Your task to perform on an android device: When is my next meeting? Image 0: 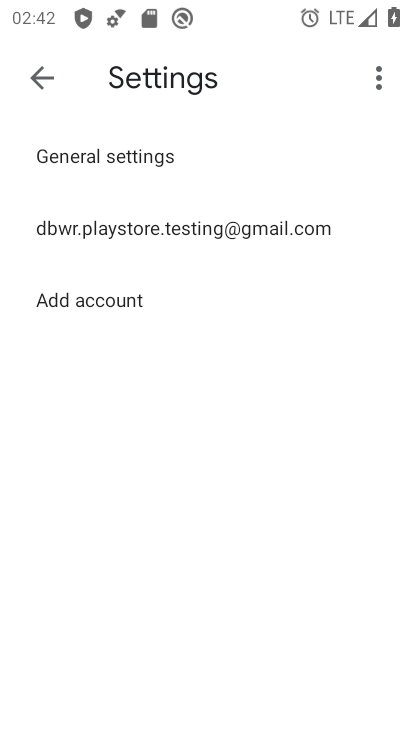
Step 0: press home button
Your task to perform on an android device: When is my next meeting? Image 1: 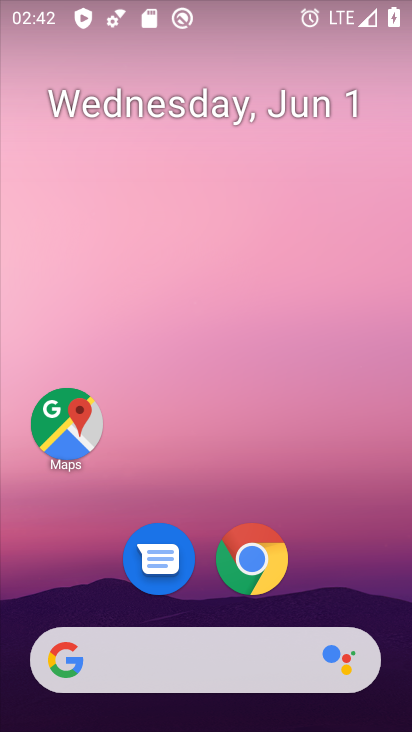
Step 1: drag from (318, 601) to (285, 205)
Your task to perform on an android device: When is my next meeting? Image 2: 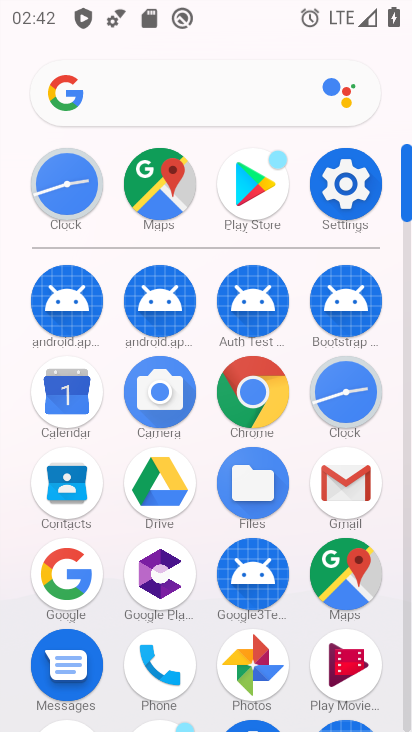
Step 2: click (64, 402)
Your task to perform on an android device: When is my next meeting? Image 3: 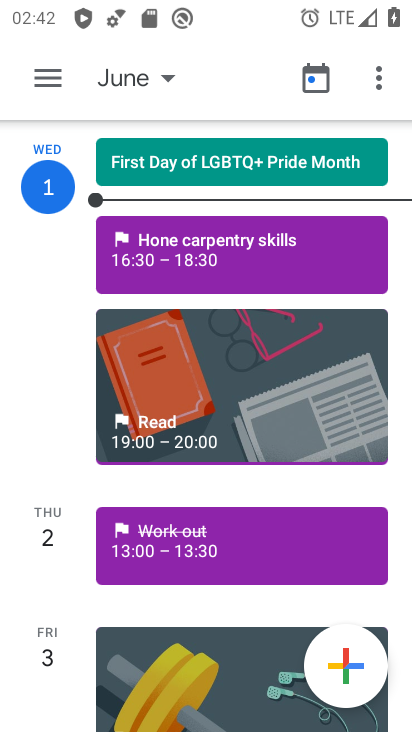
Step 3: click (42, 88)
Your task to perform on an android device: When is my next meeting? Image 4: 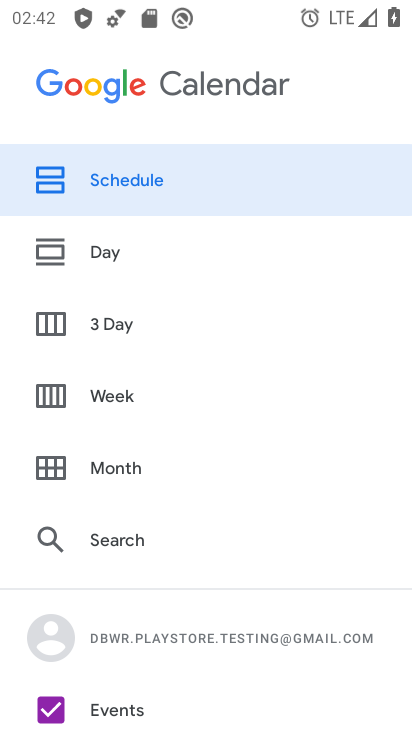
Step 4: click (117, 194)
Your task to perform on an android device: When is my next meeting? Image 5: 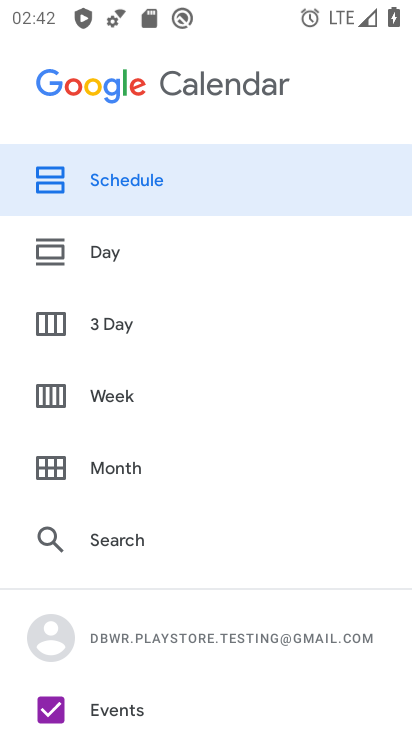
Step 5: click (152, 194)
Your task to perform on an android device: When is my next meeting? Image 6: 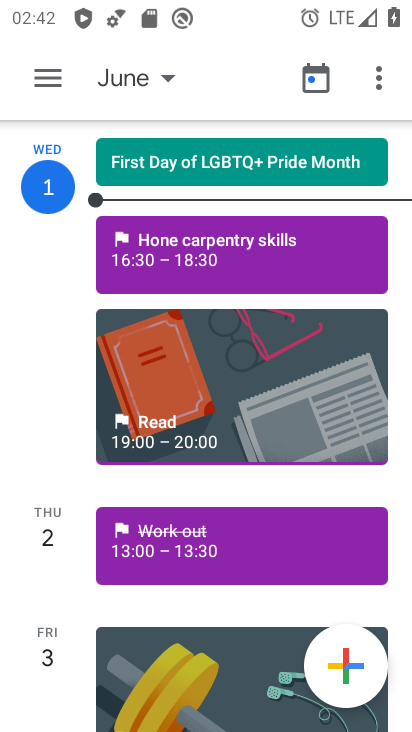
Step 6: task complete